Your task to perform on an android device: Open Google Maps Image 0: 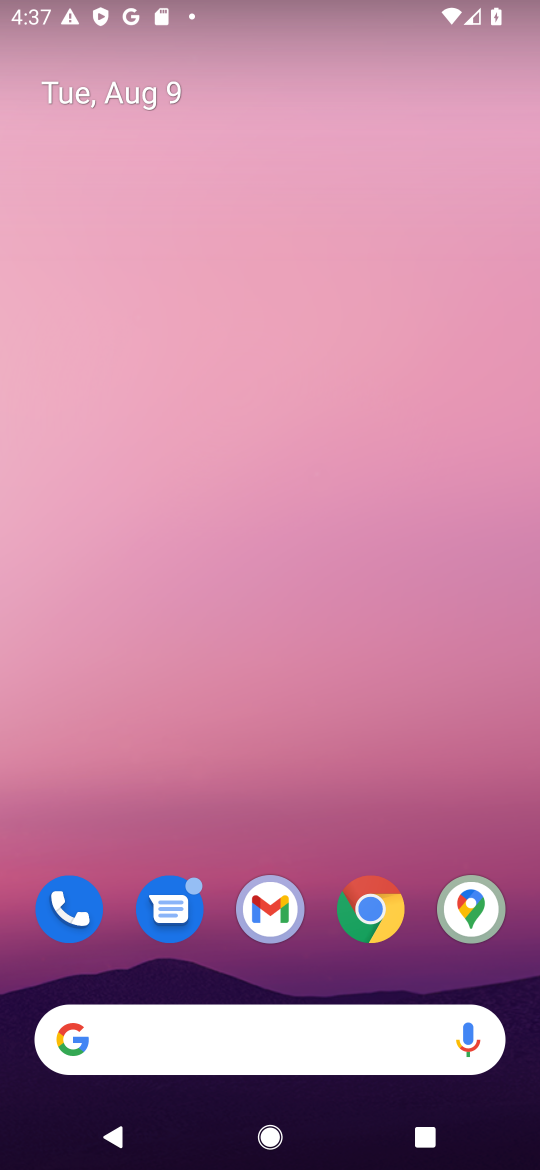
Step 0: click (491, 924)
Your task to perform on an android device: Open Google Maps Image 1: 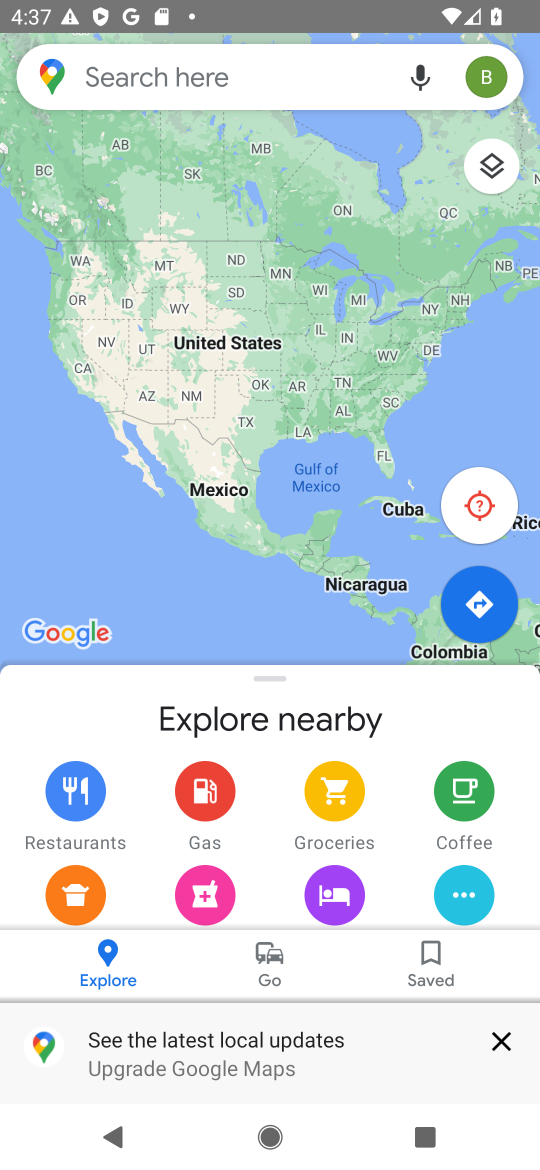
Step 1: task complete